Your task to perform on an android device: Open sound settings Image 0: 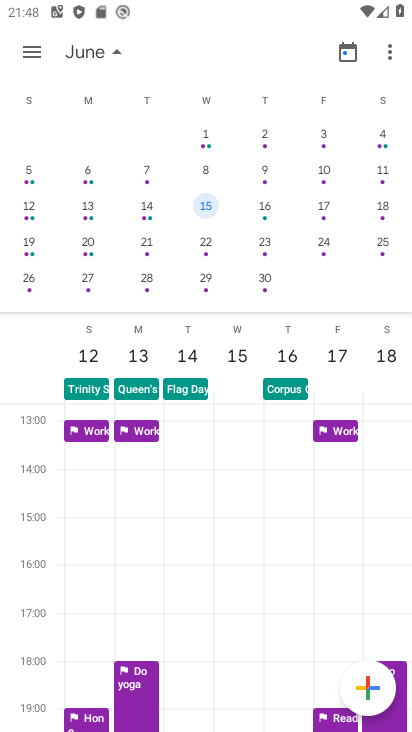
Step 0: press home button
Your task to perform on an android device: Open sound settings Image 1: 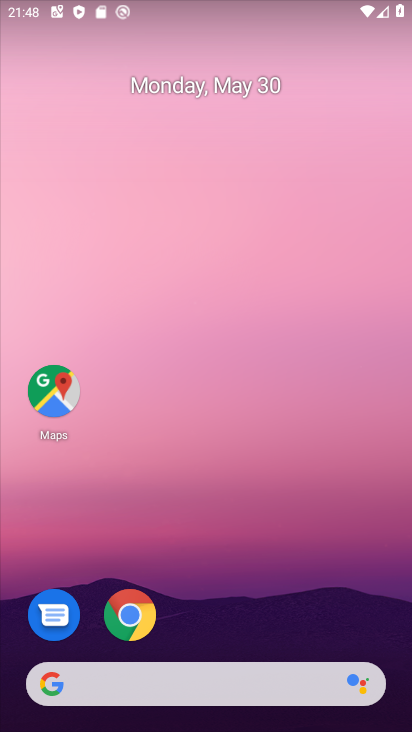
Step 1: drag from (231, 625) to (167, 157)
Your task to perform on an android device: Open sound settings Image 2: 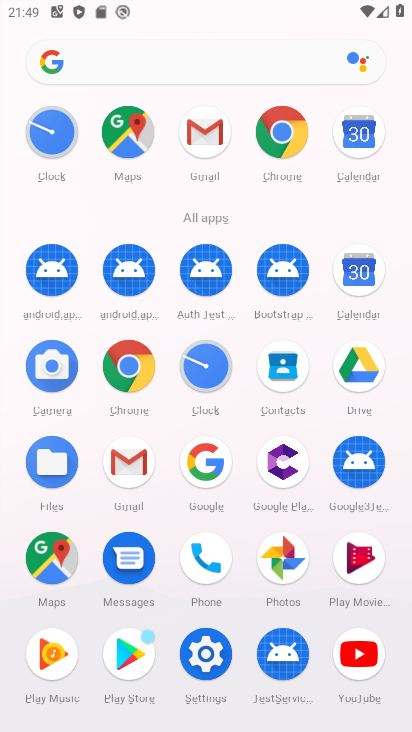
Step 2: click (206, 652)
Your task to perform on an android device: Open sound settings Image 3: 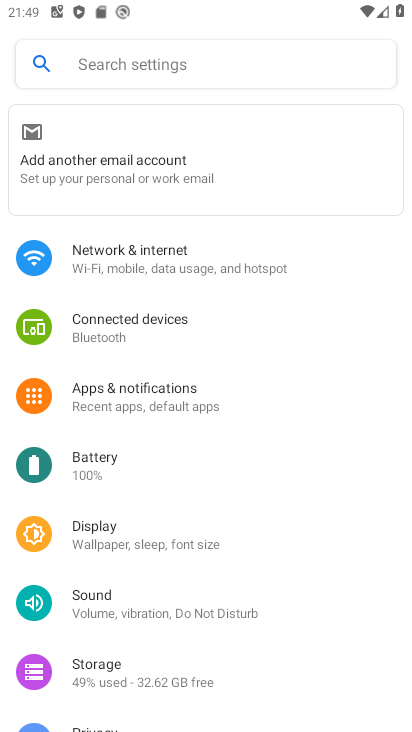
Step 3: click (102, 682)
Your task to perform on an android device: Open sound settings Image 4: 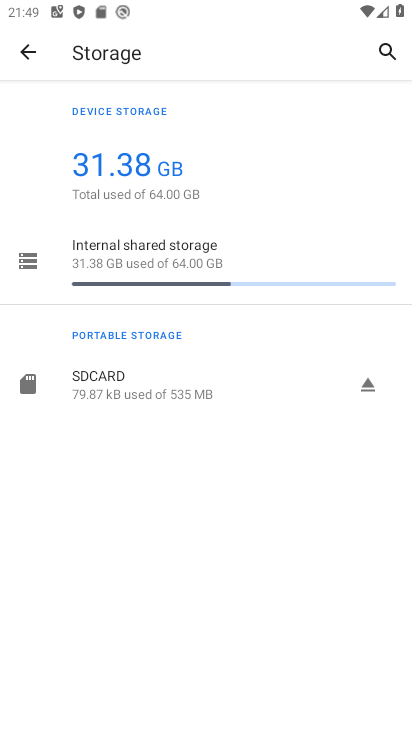
Step 4: click (38, 67)
Your task to perform on an android device: Open sound settings Image 5: 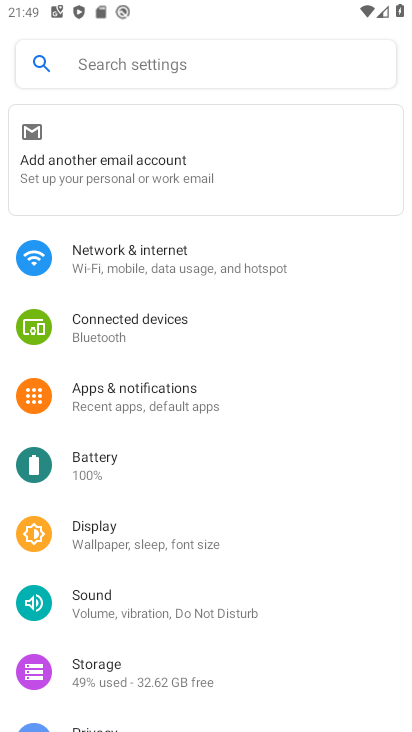
Step 5: click (165, 607)
Your task to perform on an android device: Open sound settings Image 6: 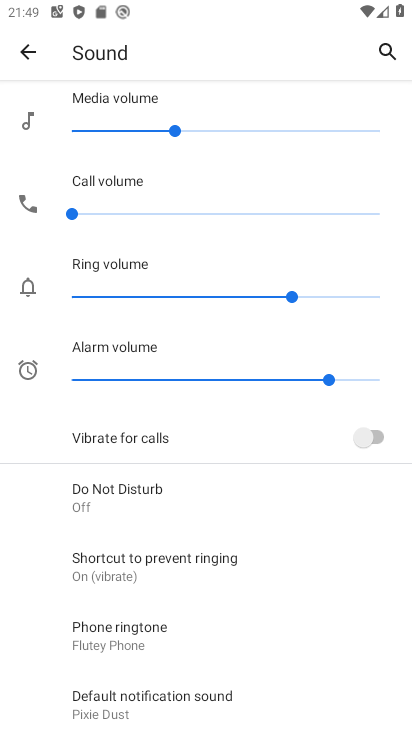
Step 6: task complete